Your task to perform on an android device: check android version Image 0: 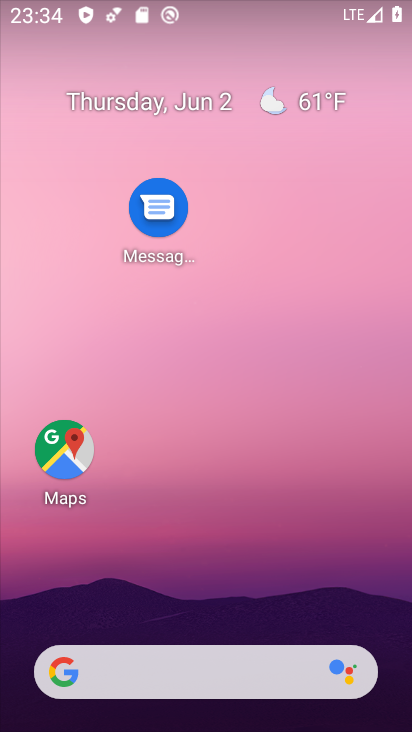
Step 0: drag from (169, 634) to (229, 6)
Your task to perform on an android device: check android version Image 1: 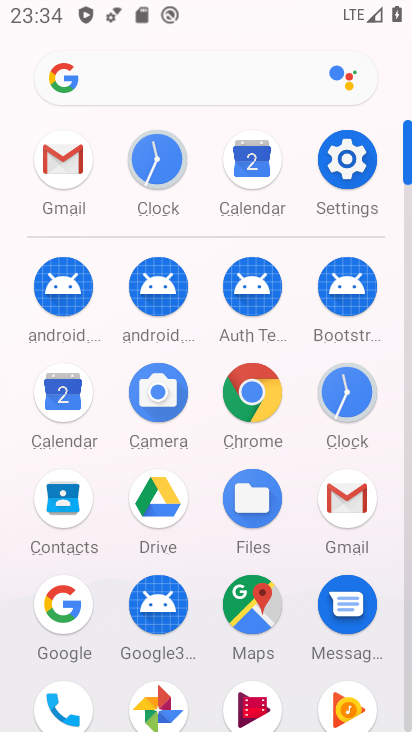
Step 1: click (344, 178)
Your task to perform on an android device: check android version Image 2: 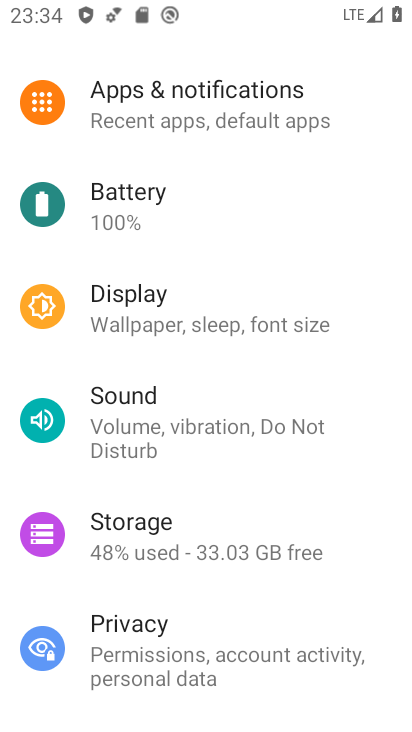
Step 2: drag from (203, 555) to (130, 1)
Your task to perform on an android device: check android version Image 3: 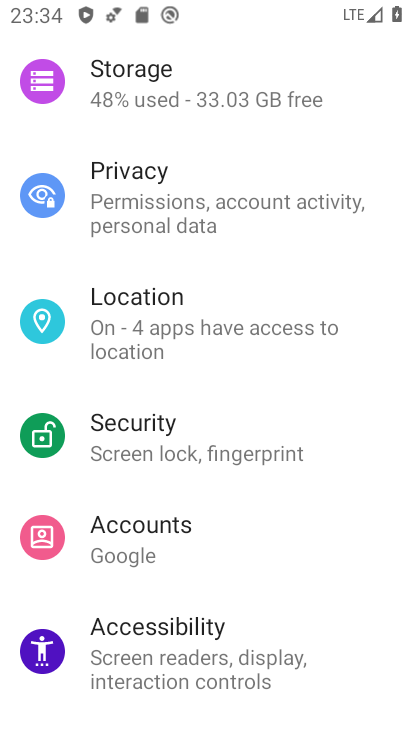
Step 3: drag from (199, 449) to (249, 31)
Your task to perform on an android device: check android version Image 4: 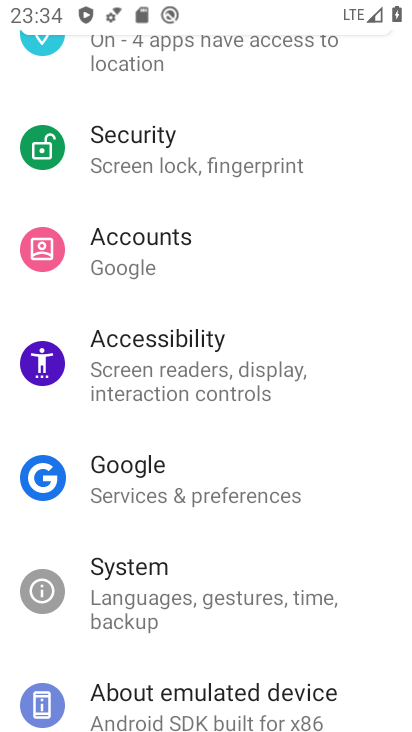
Step 4: click (201, 667)
Your task to perform on an android device: check android version Image 5: 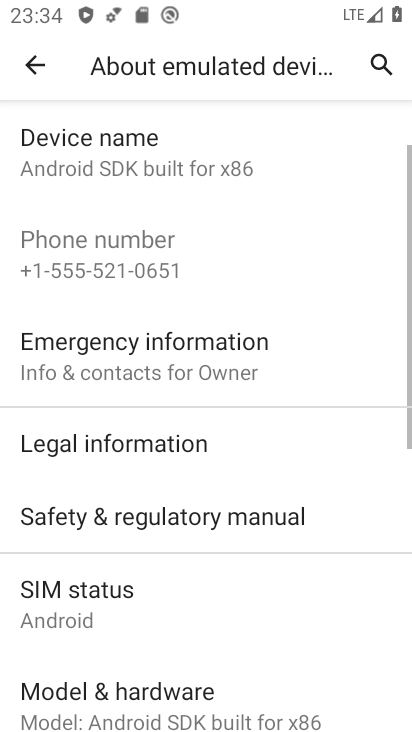
Step 5: drag from (183, 591) to (175, 43)
Your task to perform on an android device: check android version Image 6: 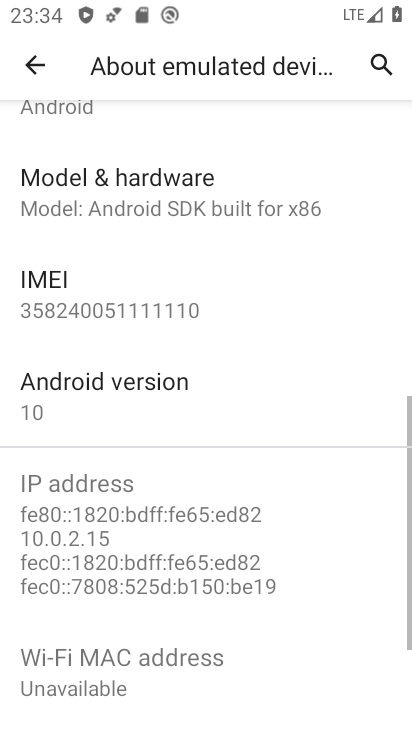
Step 6: click (142, 398)
Your task to perform on an android device: check android version Image 7: 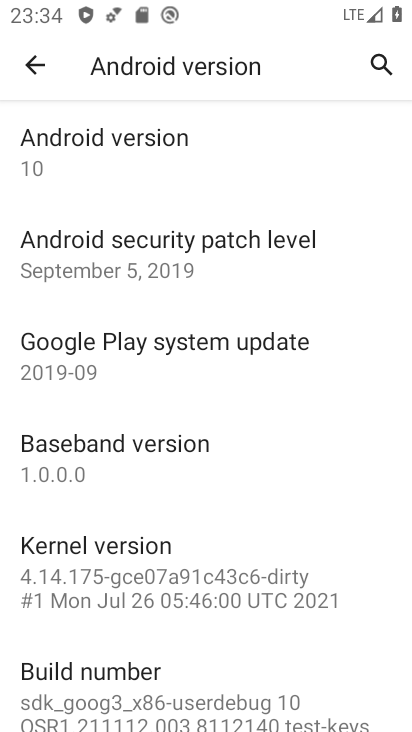
Step 7: drag from (271, 509) to (273, 337)
Your task to perform on an android device: check android version Image 8: 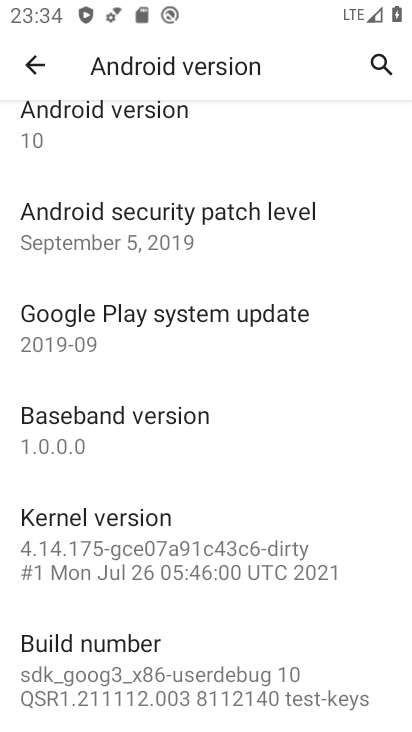
Step 8: click (225, 129)
Your task to perform on an android device: check android version Image 9: 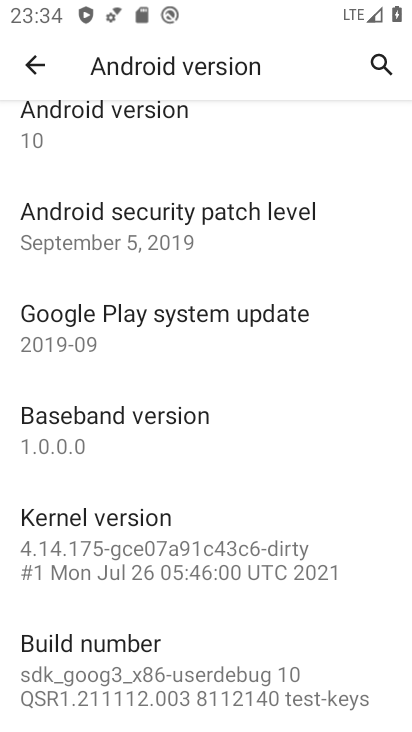
Step 9: task complete